Your task to perform on an android device: Play the last video I watched on Youtube Image 0: 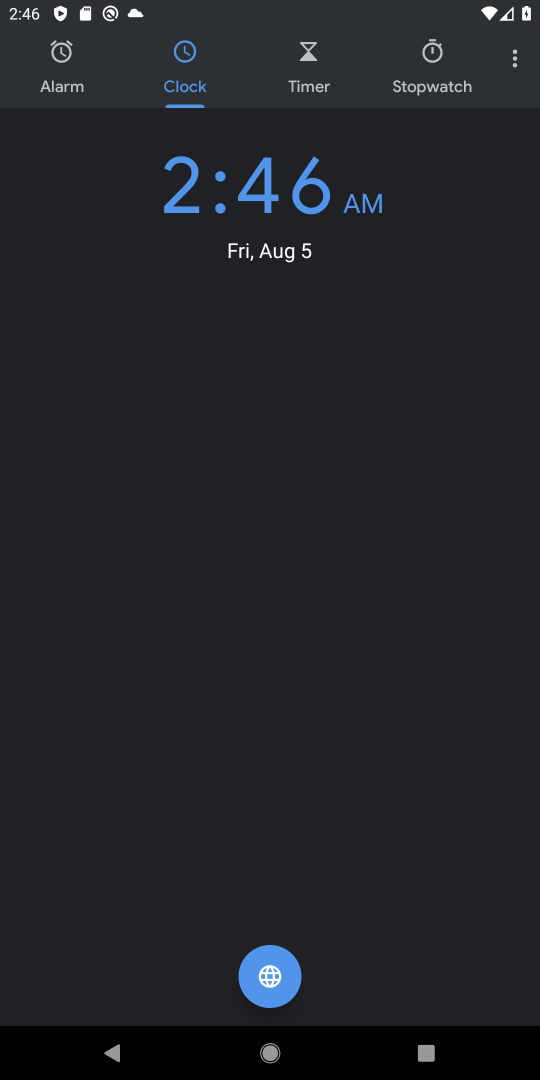
Step 0: press home button
Your task to perform on an android device: Play the last video I watched on Youtube Image 1: 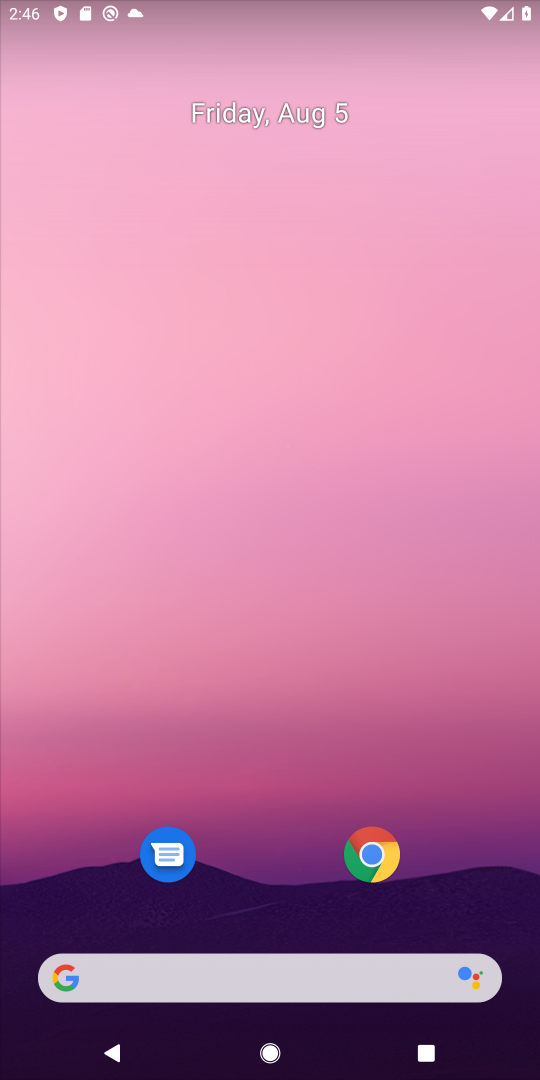
Step 1: drag from (87, 1031) to (180, 426)
Your task to perform on an android device: Play the last video I watched on Youtube Image 2: 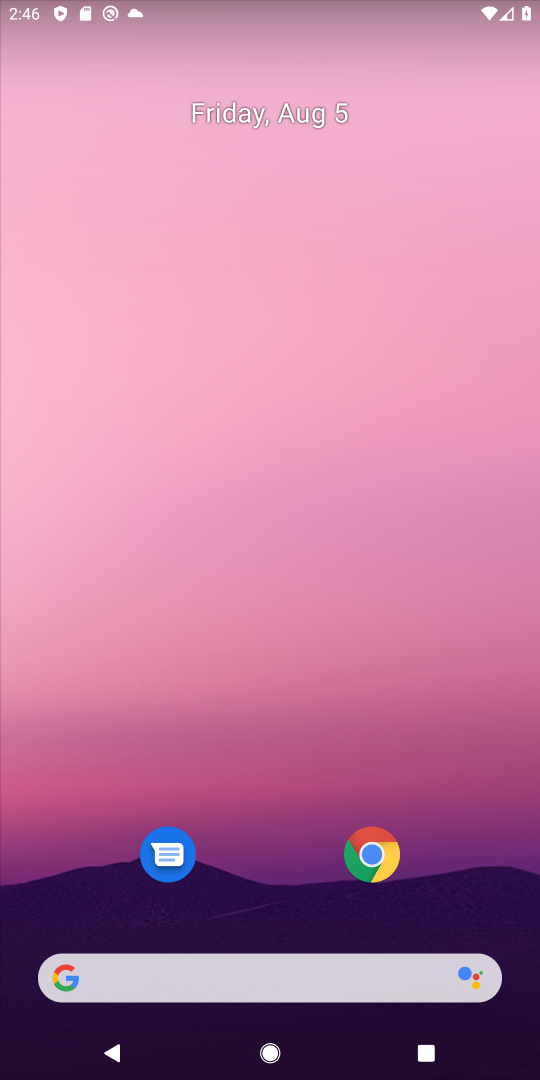
Step 2: drag from (65, 1047) to (378, 223)
Your task to perform on an android device: Play the last video I watched on Youtube Image 3: 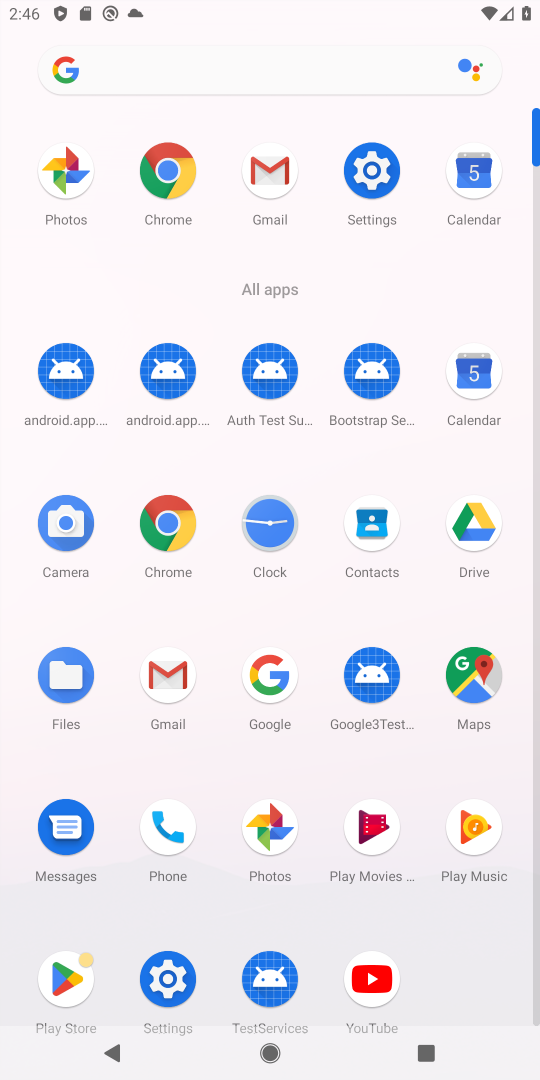
Step 3: click (387, 989)
Your task to perform on an android device: Play the last video I watched on Youtube Image 4: 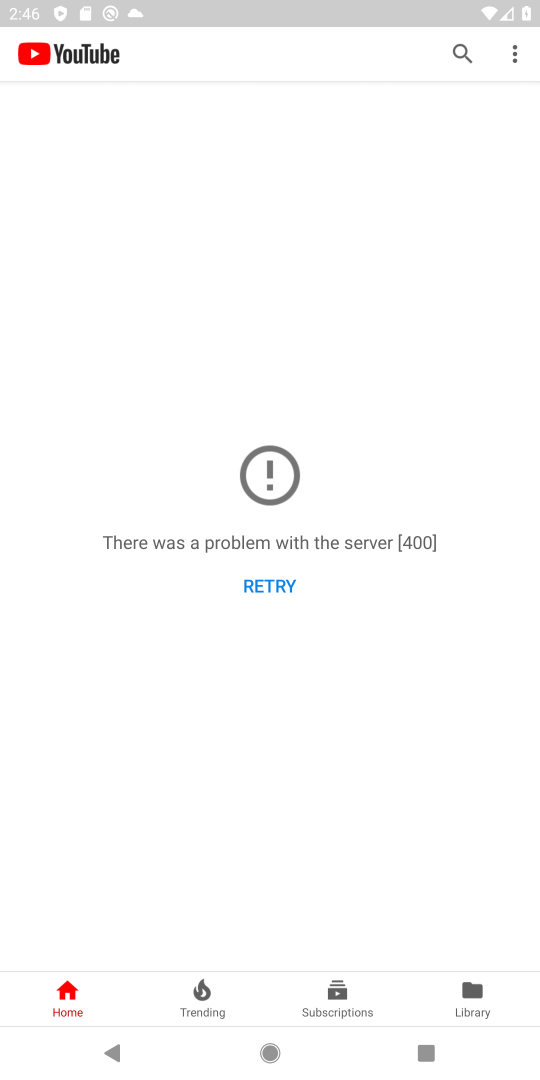
Step 4: click (468, 993)
Your task to perform on an android device: Play the last video I watched on Youtube Image 5: 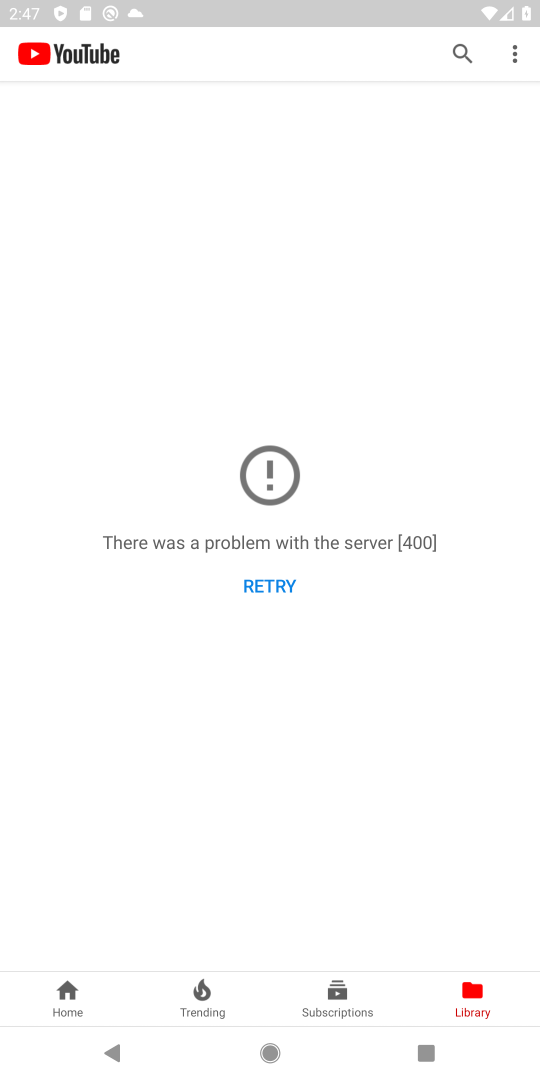
Step 5: task complete